Your task to perform on an android device: Clear the shopping cart on target.com. Image 0: 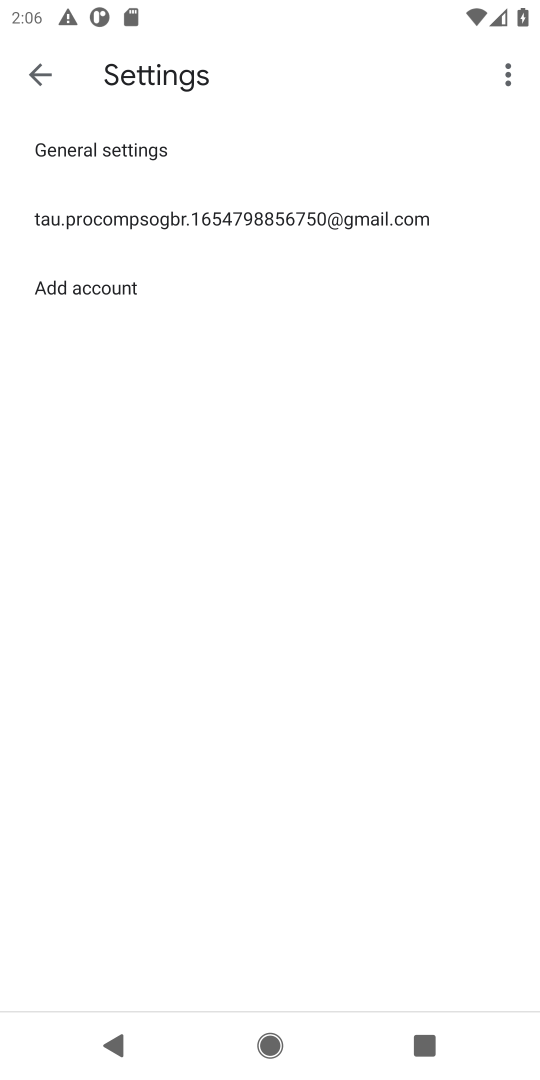
Step 0: press home button
Your task to perform on an android device: Clear the shopping cart on target.com. Image 1: 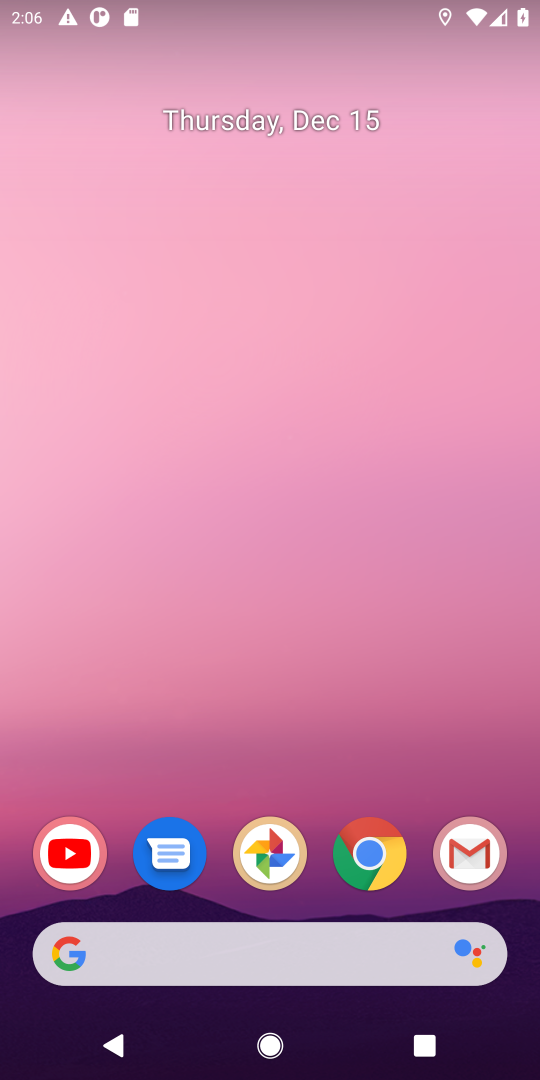
Step 1: drag from (317, 908) to (355, 340)
Your task to perform on an android device: Clear the shopping cart on target.com. Image 2: 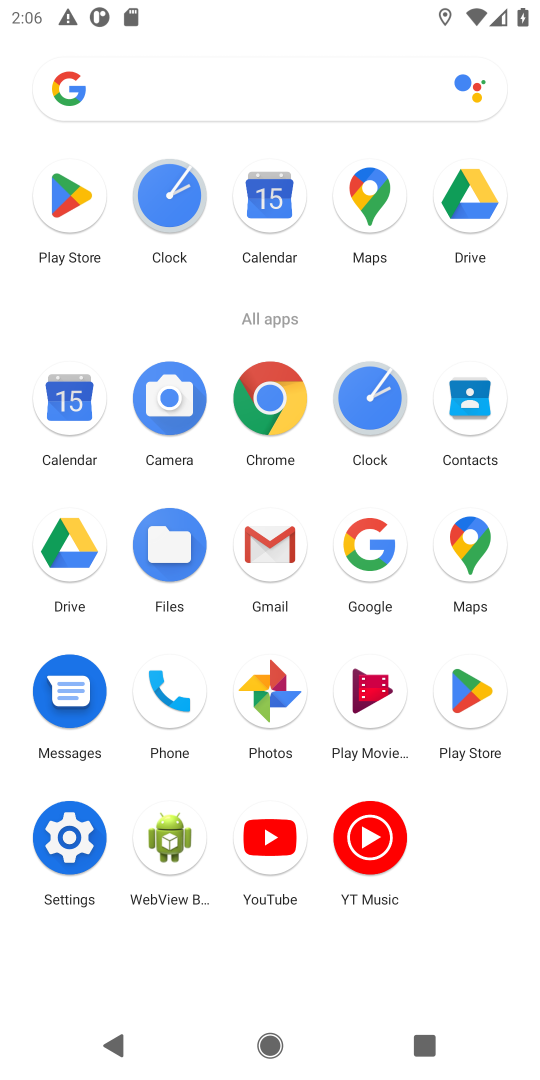
Step 2: click (390, 539)
Your task to perform on an android device: Clear the shopping cart on target.com. Image 3: 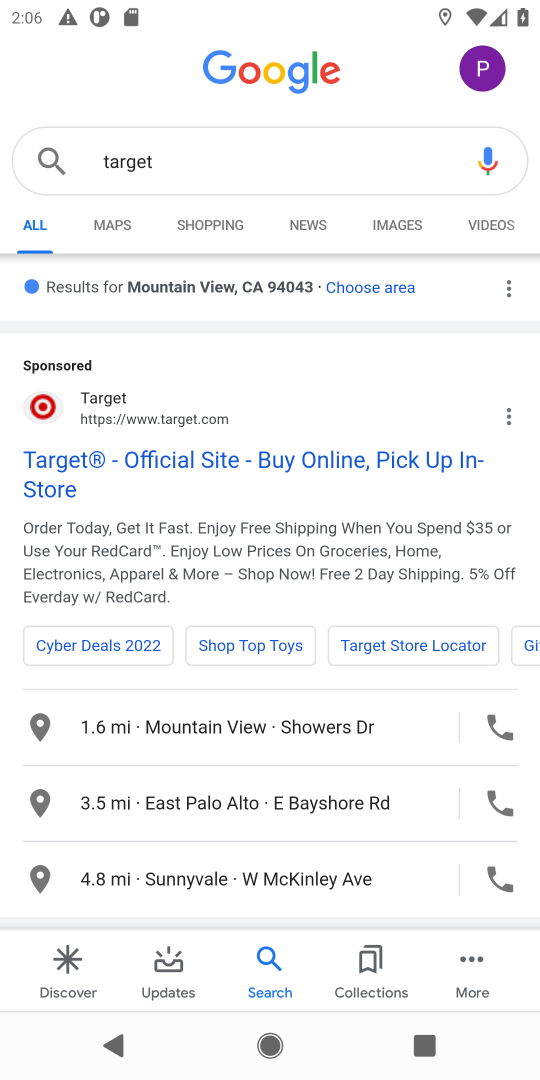
Step 3: click (132, 462)
Your task to perform on an android device: Clear the shopping cart on target.com. Image 4: 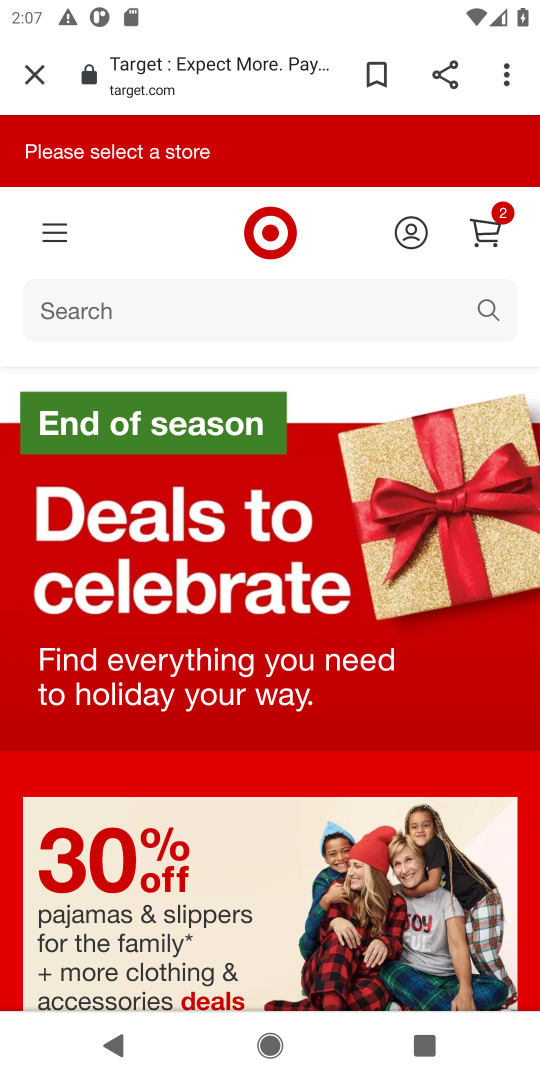
Step 4: click (500, 215)
Your task to perform on an android device: Clear the shopping cart on target.com. Image 5: 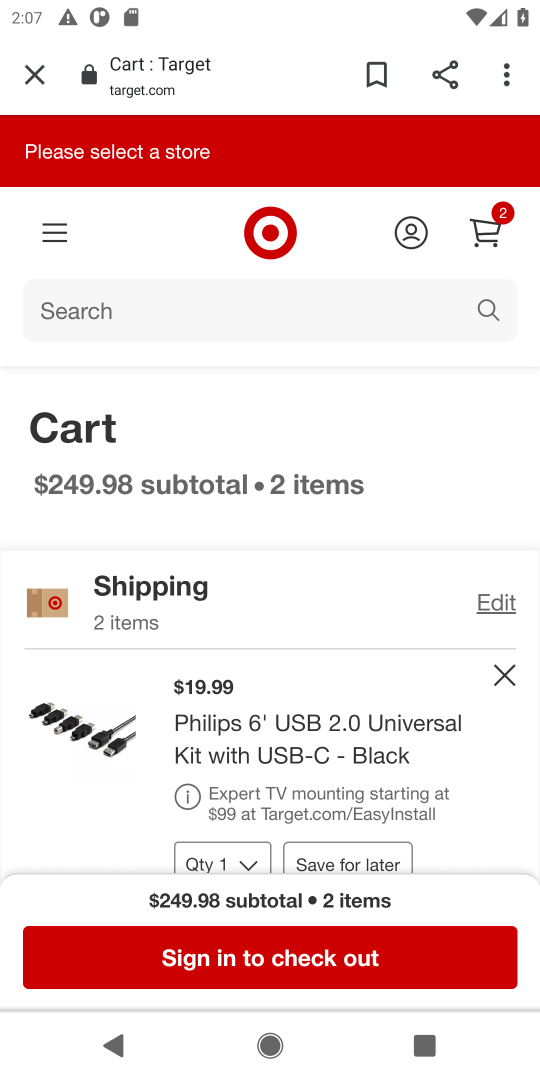
Step 5: click (504, 664)
Your task to perform on an android device: Clear the shopping cart on target.com. Image 6: 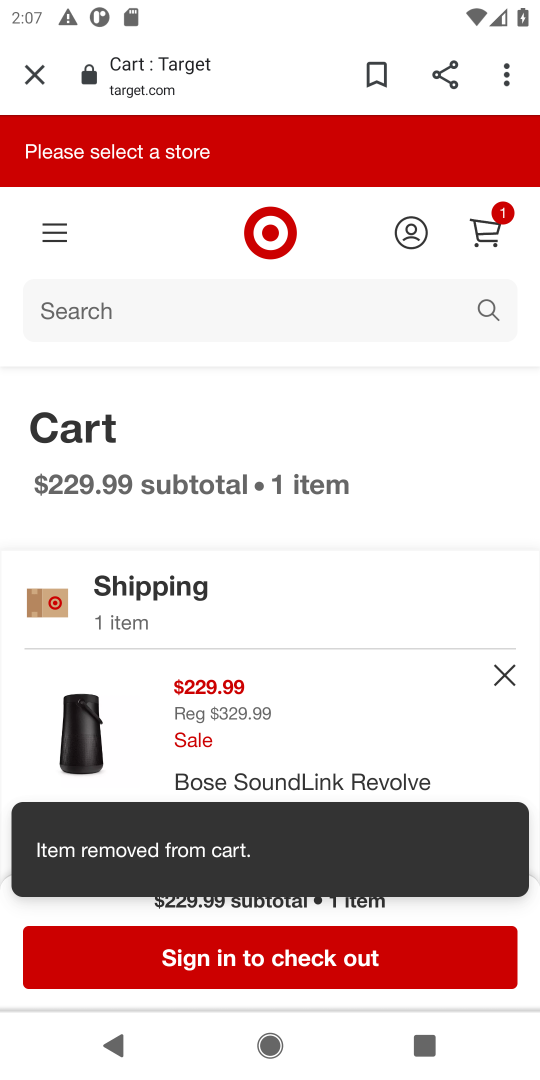
Step 6: click (518, 675)
Your task to perform on an android device: Clear the shopping cart on target.com. Image 7: 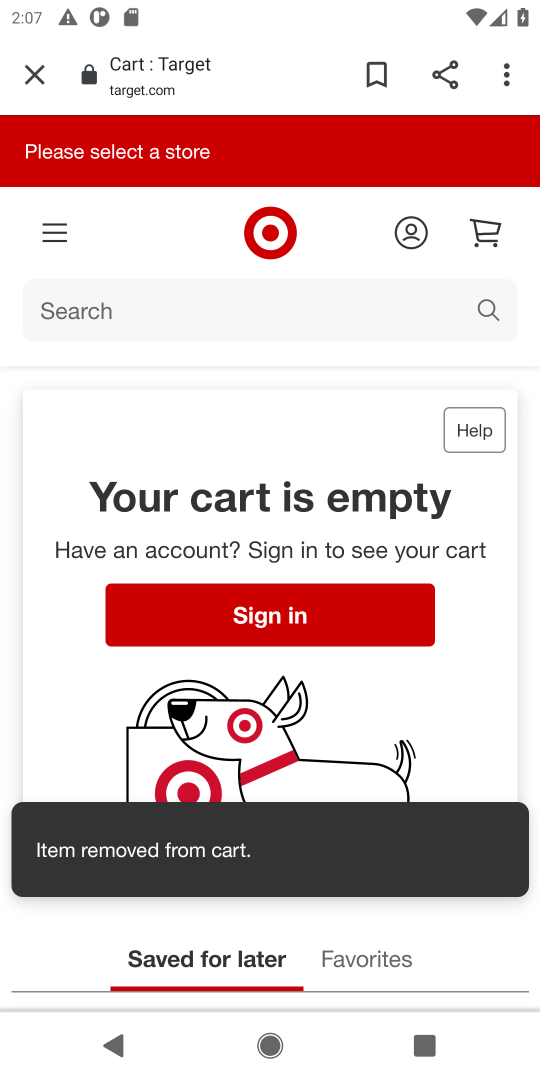
Step 7: task complete